Your task to perform on an android device: Open Google Maps and go to "Timeline" Image 0: 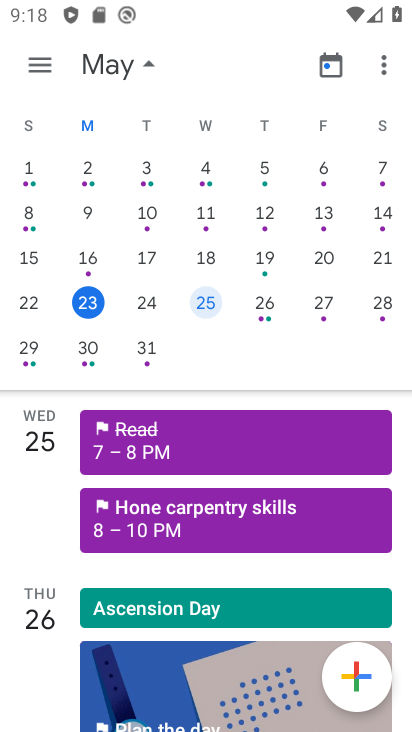
Step 0: press home button
Your task to perform on an android device: Open Google Maps and go to "Timeline" Image 1: 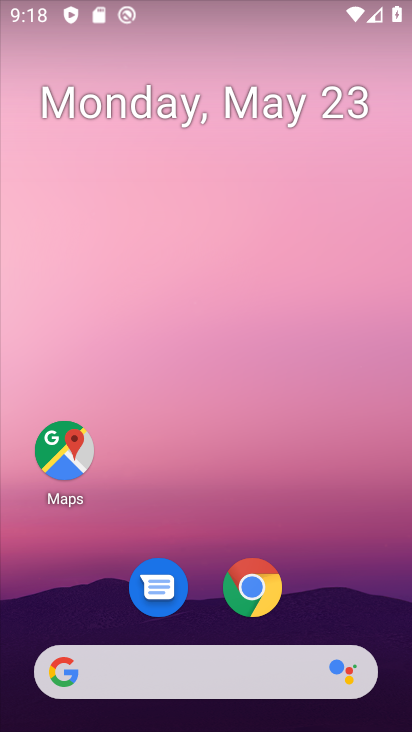
Step 1: drag from (357, 511) to (269, 23)
Your task to perform on an android device: Open Google Maps and go to "Timeline" Image 2: 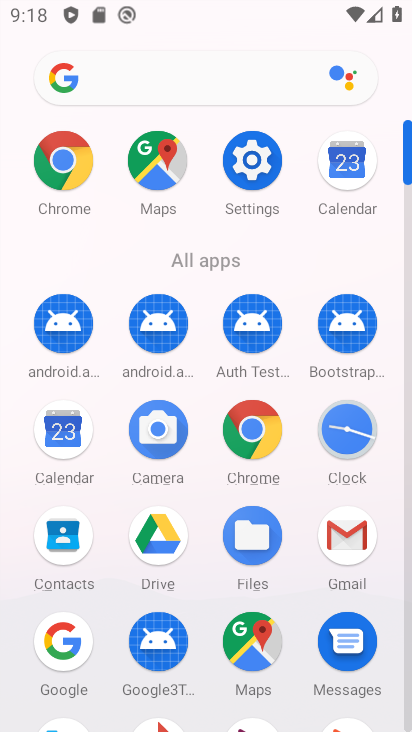
Step 2: click (147, 168)
Your task to perform on an android device: Open Google Maps and go to "Timeline" Image 3: 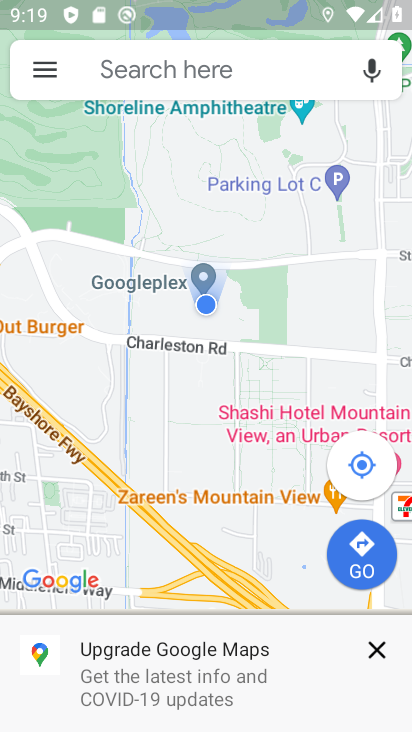
Step 3: click (41, 81)
Your task to perform on an android device: Open Google Maps and go to "Timeline" Image 4: 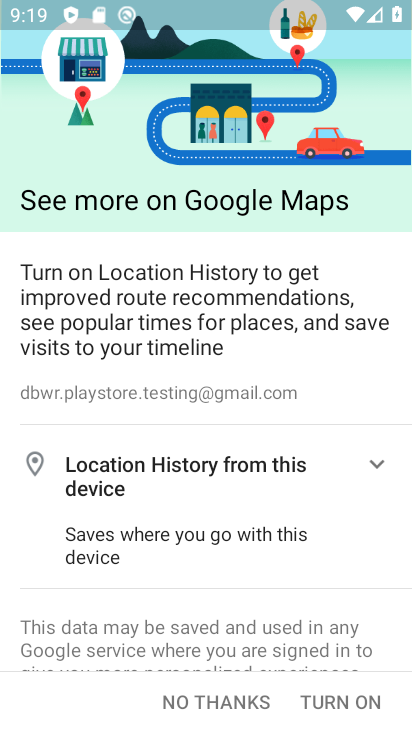
Step 4: click (220, 692)
Your task to perform on an android device: Open Google Maps and go to "Timeline" Image 5: 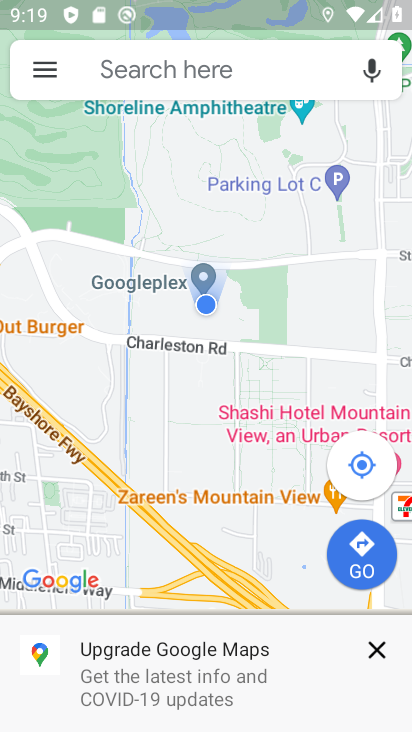
Step 5: click (46, 75)
Your task to perform on an android device: Open Google Maps and go to "Timeline" Image 6: 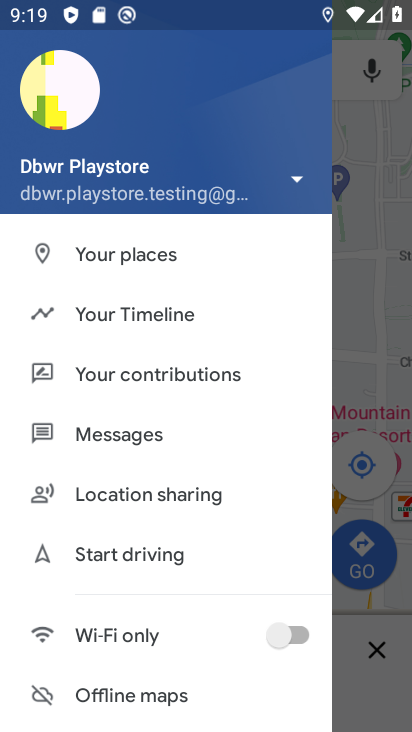
Step 6: click (119, 308)
Your task to perform on an android device: Open Google Maps and go to "Timeline" Image 7: 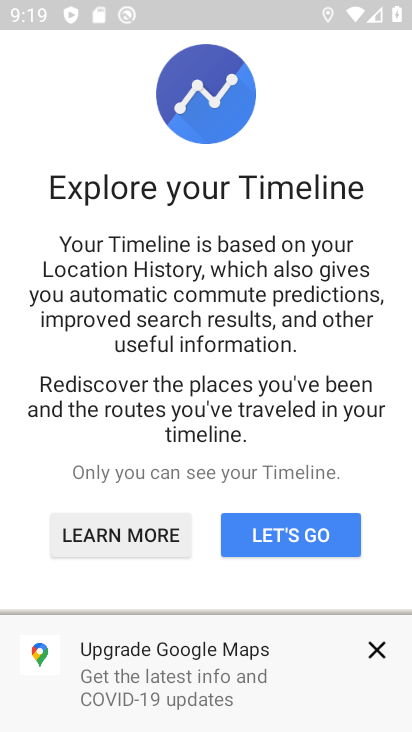
Step 7: task complete